Your task to perform on an android device: Search for pizza restaurants on Maps Image 0: 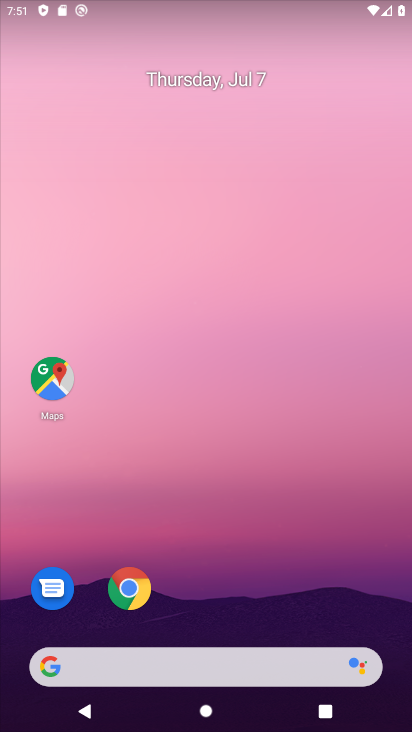
Step 0: drag from (219, 563) to (211, 109)
Your task to perform on an android device: Search for pizza restaurants on Maps Image 1: 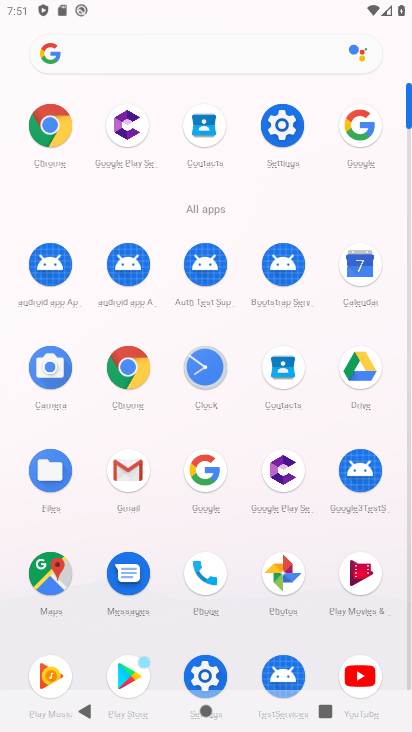
Step 1: drag from (249, 525) to (281, 237)
Your task to perform on an android device: Search for pizza restaurants on Maps Image 2: 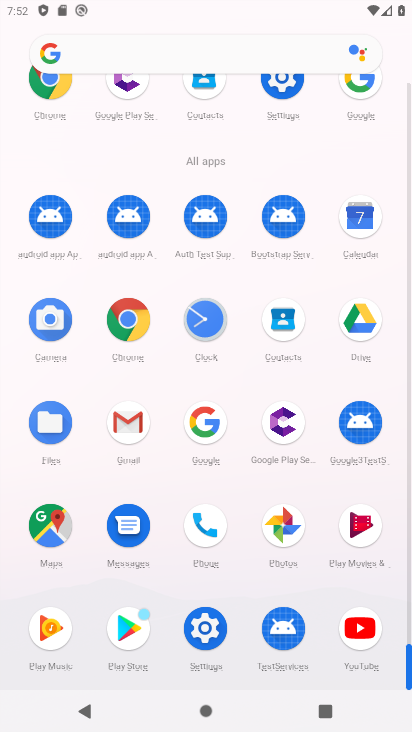
Step 2: click (44, 528)
Your task to perform on an android device: Search for pizza restaurants on Maps Image 3: 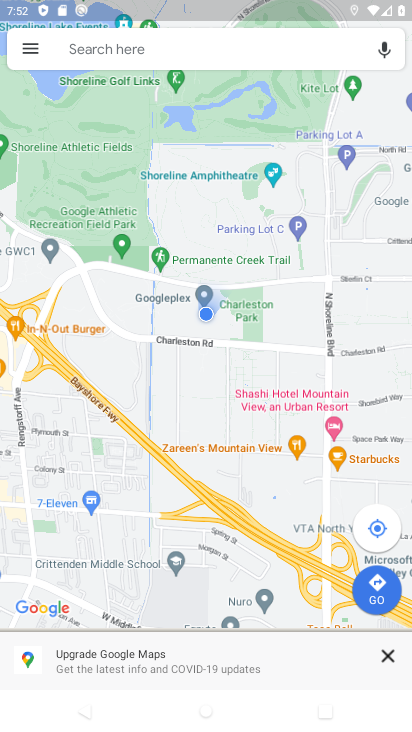
Step 3: click (163, 53)
Your task to perform on an android device: Search for pizza restaurants on Maps Image 4: 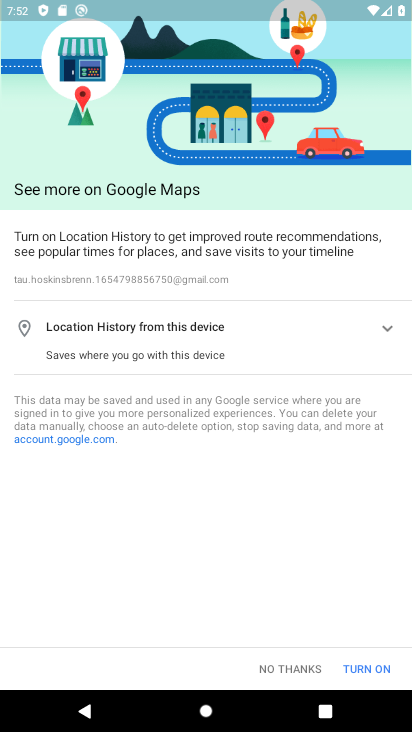
Step 4: click (294, 671)
Your task to perform on an android device: Search for pizza restaurants on Maps Image 5: 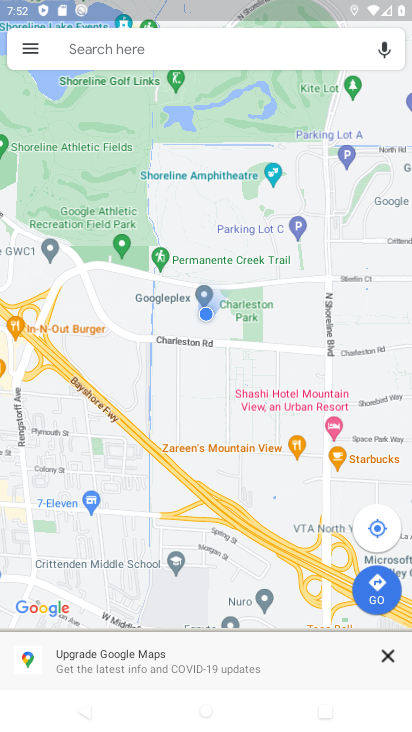
Step 5: click (222, 40)
Your task to perform on an android device: Search for pizza restaurants on Maps Image 6: 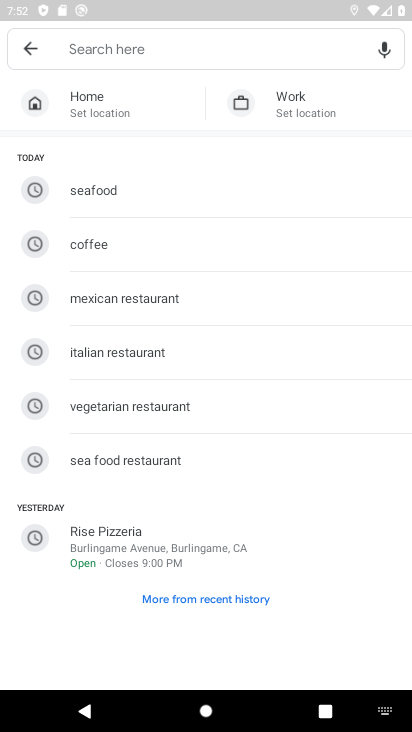
Step 6: type "pizza restaurants"
Your task to perform on an android device: Search for pizza restaurants on Maps Image 7: 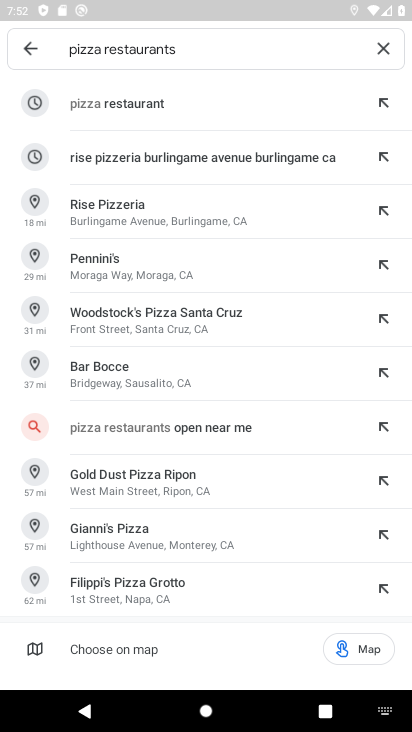
Step 7: press enter
Your task to perform on an android device: Search for pizza restaurants on Maps Image 8: 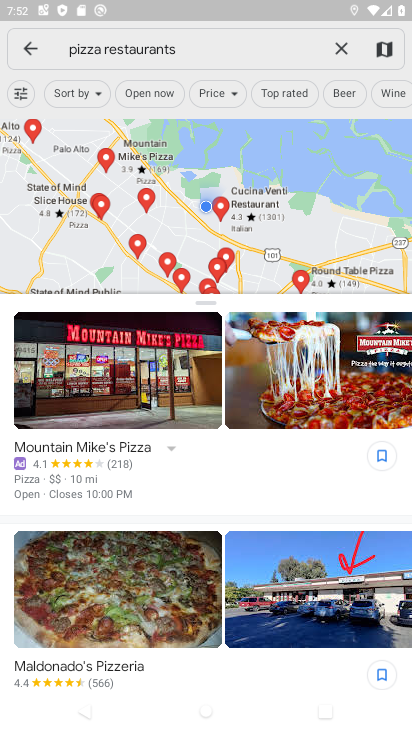
Step 8: task complete